Your task to perform on an android device: Open accessibility settings Image 0: 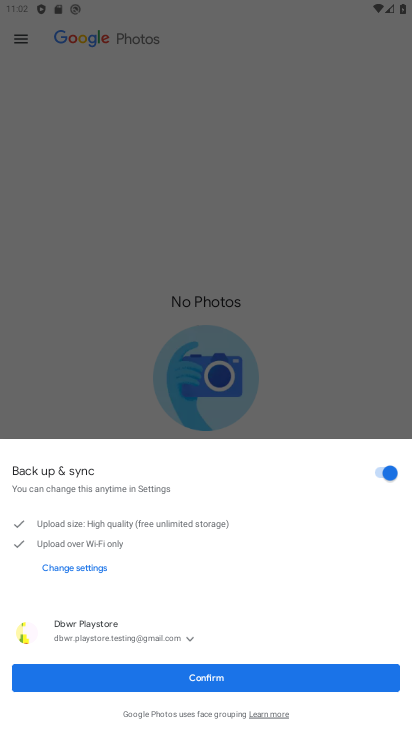
Step 0: press home button
Your task to perform on an android device: Open accessibility settings Image 1: 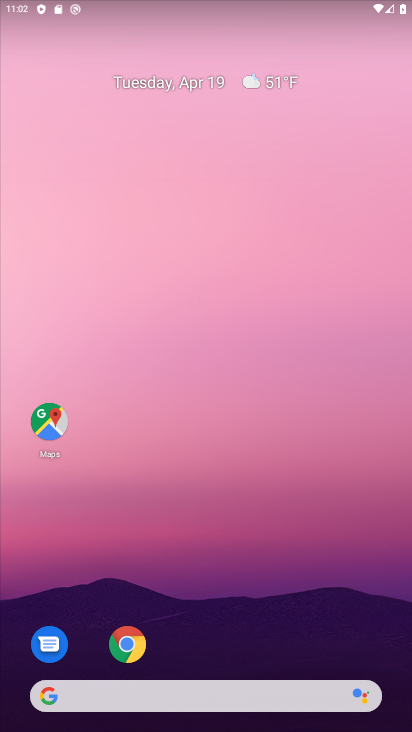
Step 1: drag from (254, 547) to (272, 73)
Your task to perform on an android device: Open accessibility settings Image 2: 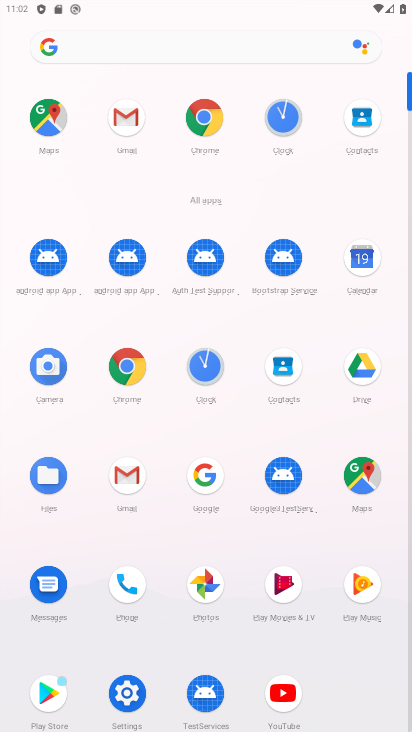
Step 2: click (132, 695)
Your task to perform on an android device: Open accessibility settings Image 3: 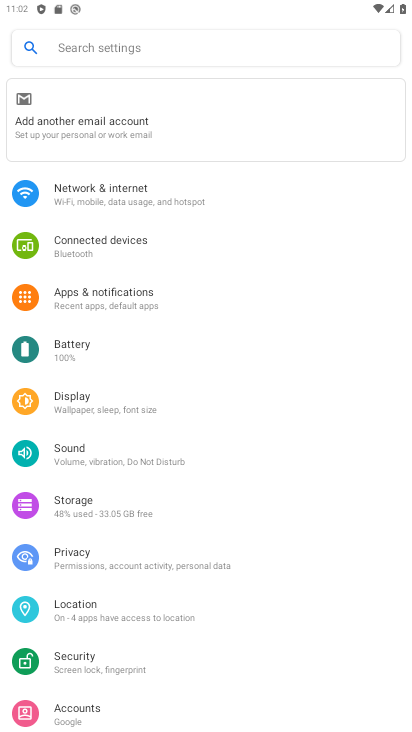
Step 3: drag from (133, 592) to (143, 503)
Your task to perform on an android device: Open accessibility settings Image 4: 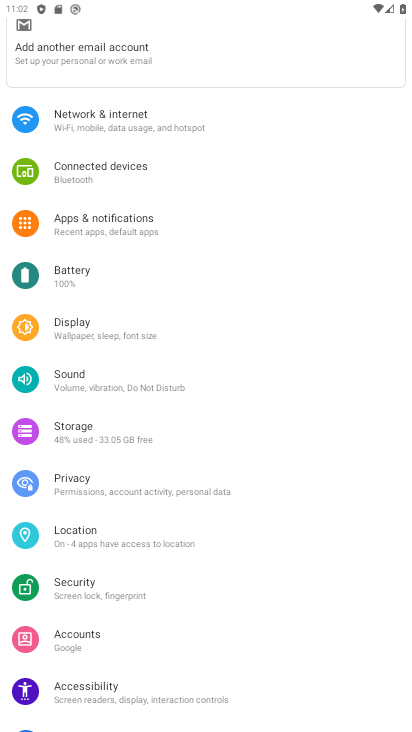
Step 4: drag from (120, 642) to (156, 452)
Your task to perform on an android device: Open accessibility settings Image 5: 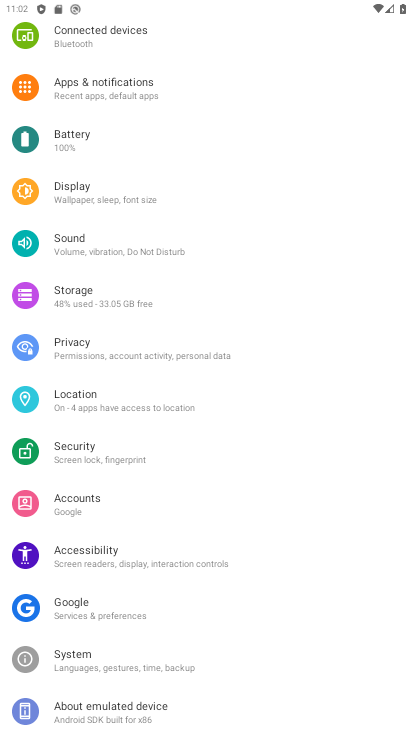
Step 5: click (111, 561)
Your task to perform on an android device: Open accessibility settings Image 6: 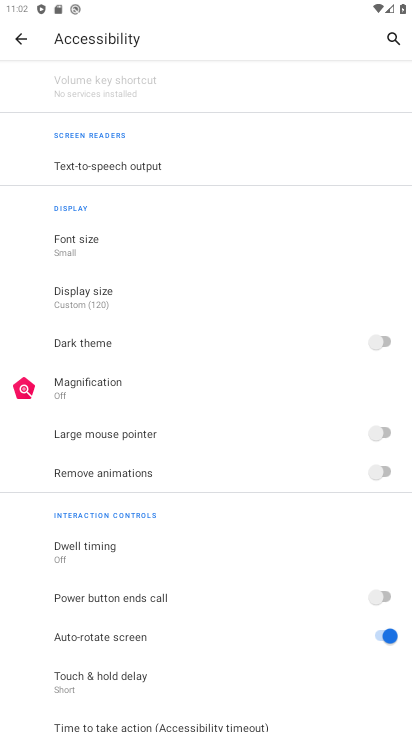
Step 6: task complete